Your task to perform on an android device: add a contact in the contacts app Image 0: 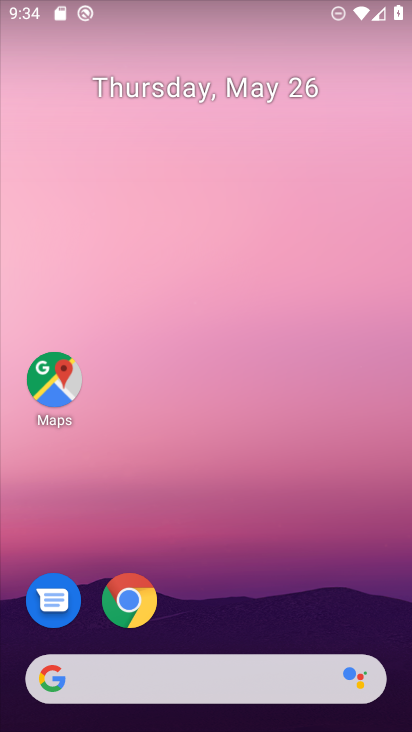
Step 0: drag from (236, 649) to (313, 294)
Your task to perform on an android device: add a contact in the contacts app Image 1: 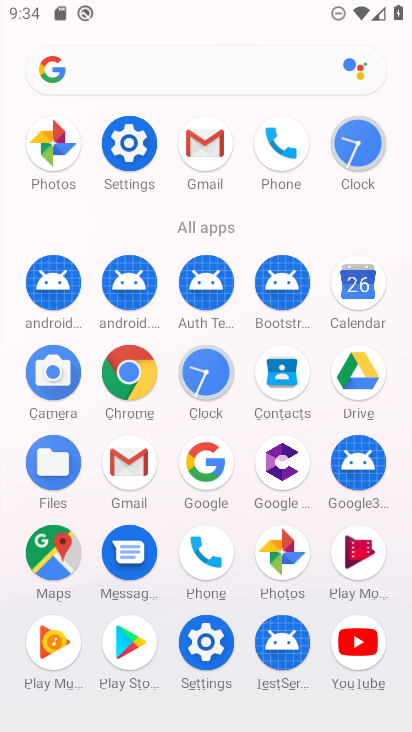
Step 1: click (273, 384)
Your task to perform on an android device: add a contact in the contacts app Image 2: 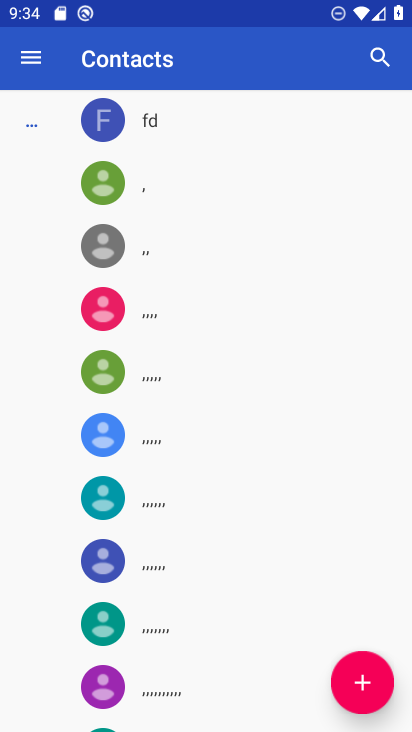
Step 2: click (362, 676)
Your task to perform on an android device: add a contact in the contacts app Image 3: 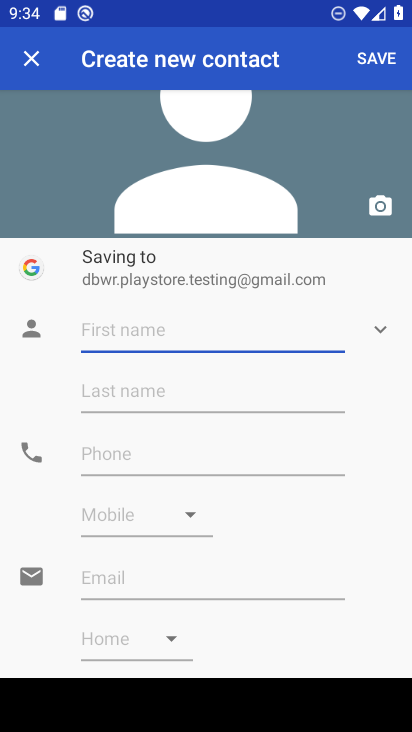
Step 3: type "raj"
Your task to perform on an android device: add a contact in the contacts app Image 4: 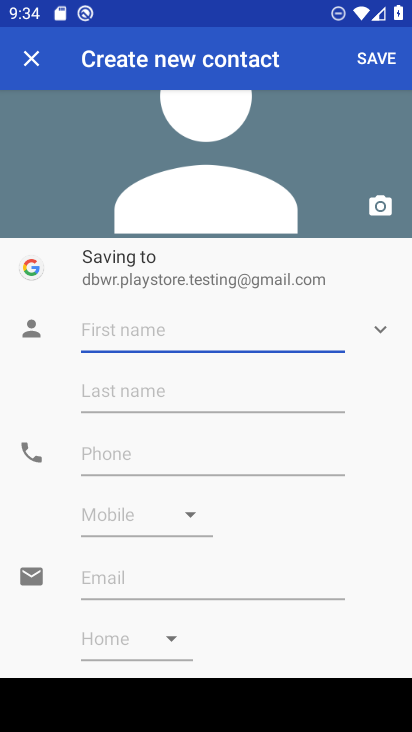
Step 4: click (165, 388)
Your task to perform on an android device: add a contact in the contacts app Image 5: 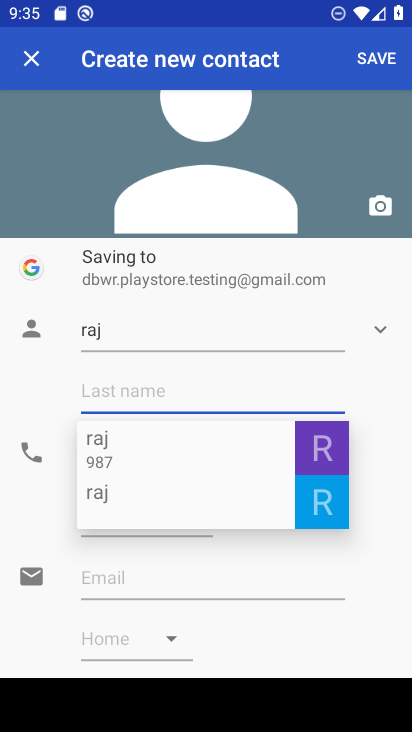
Step 5: type "chopra"
Your task to perform on an android device: add a contact in the contacts app Image 6: 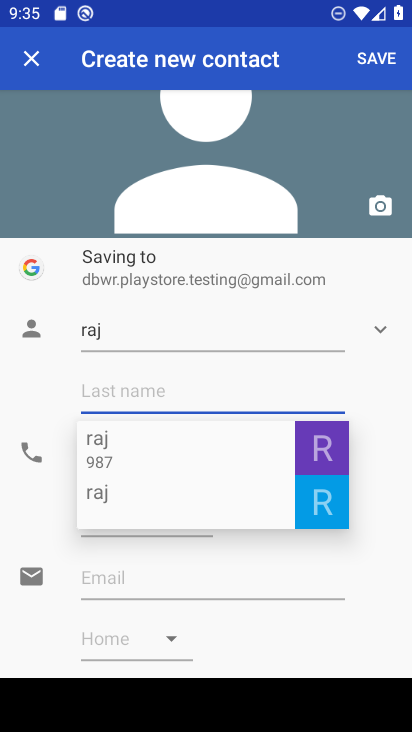
Step 6: click (172, 569)
Your task to perform on an android device: add a contact in the contacts app Image 7: 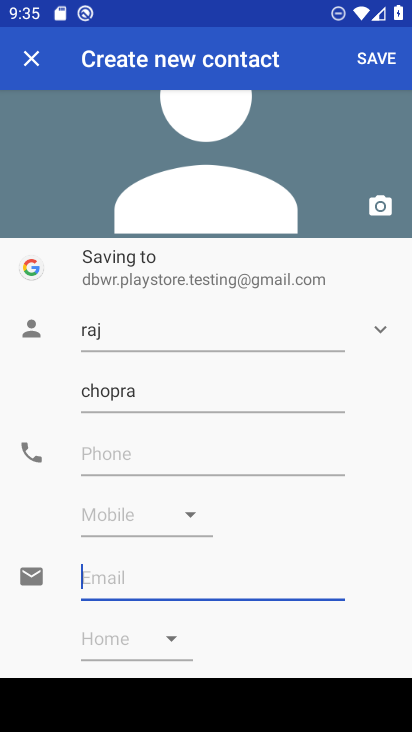
Step 7: click (112, 453)
Your task to perform on an android device: add a contact in the contacts app Image 8: 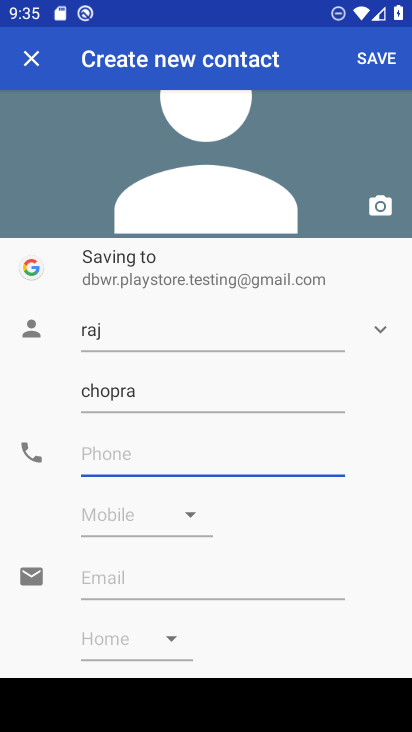
Step 8: type "8978967896"
Your task to perform on an android device: add a contact in the contacts app Image 9: 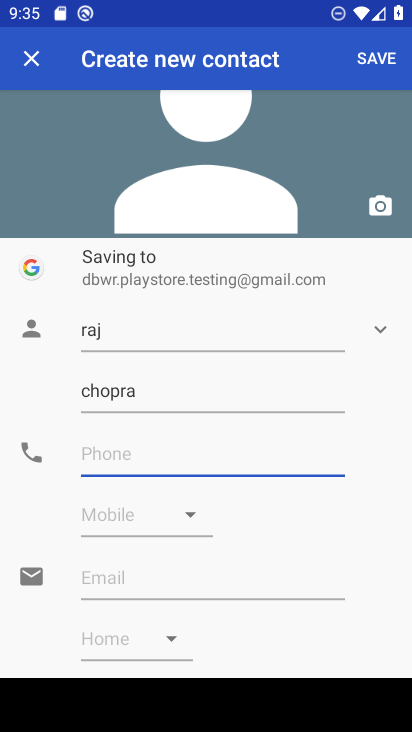
Step 9: click (139, 512)
Your task to perform on an android device: add a contact in the contacts app Image 10: 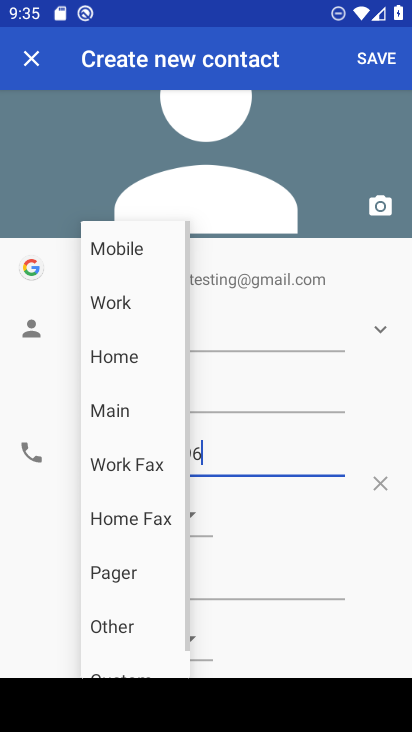
Step 10: click (165, 255)
Your task to perform on an android device: add a contact in the contacts app Image 11: 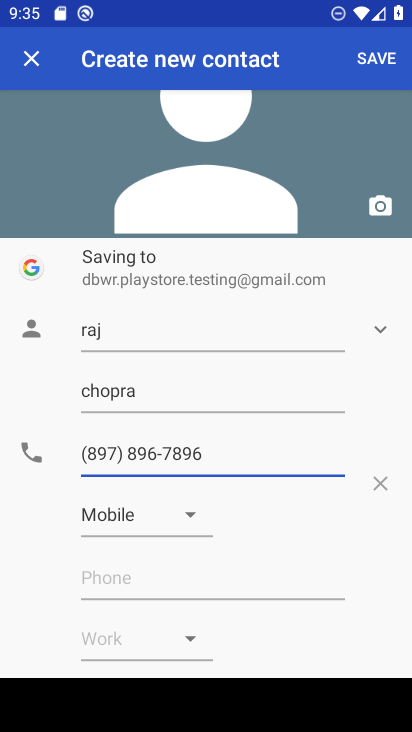
Step 11: click (385, 54)
Your task to perform on an android device: add a contact in the contacts app Image 12: 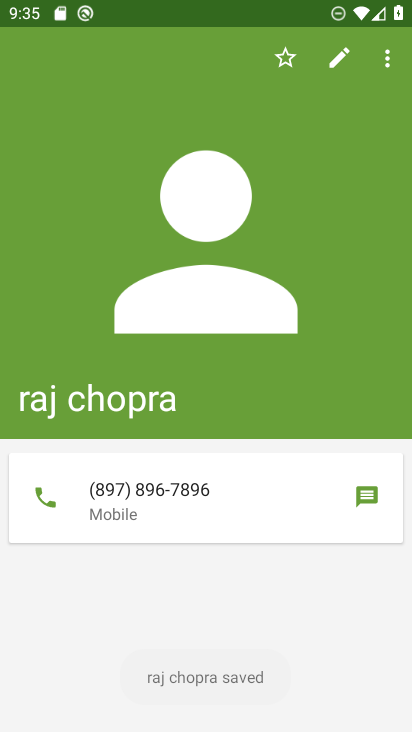
Step 12: task complete